Your task to perform on an android device: Is it going to rain this weekend? Image 0: 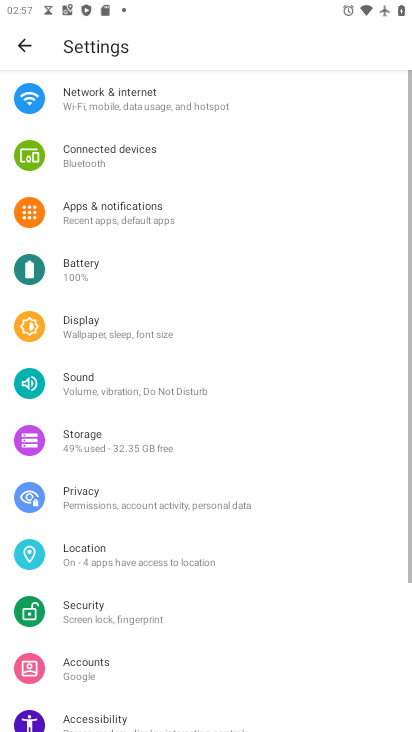
Step 0: press home button
Your task to perform on an android device: Is it going to rain this weekend? Image 1: 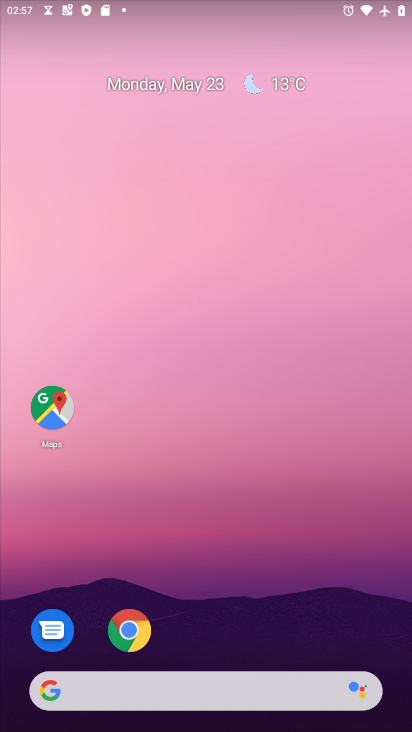
Step 1: click (281, 84)
Your task to perform on an android device: Is it going to rain this weekend? Image 2: 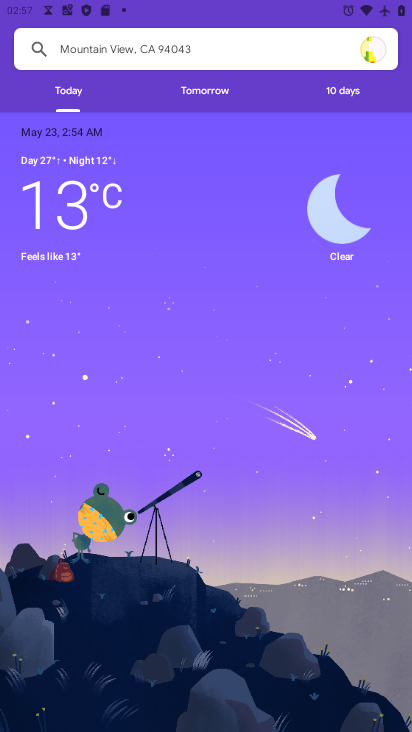
Step 2: click (345, 93)
Your task to perform on an android device: Is it going to rain this weekend? Image 3: 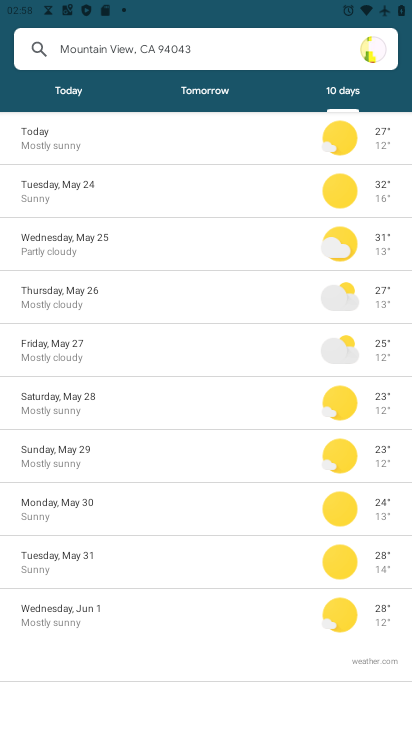
Step 3: task complete